Your task to perform on an android device: Search for "panasonic triple a" on amazon, select the first entry, and add it to the cart. Image 0: 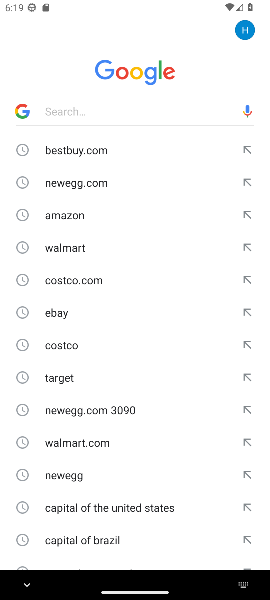
Step 0: click (76, 216)
Your task to perform on an android device: Search for "panasonic triple a" on amazon, select the first entry, and add it to the cart. Image 1: 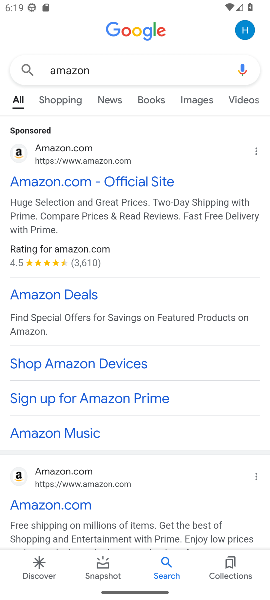
Step 1: click (52, 509)
Your task to perform on an android device: Search for "panasonic triple a" on amazon, select the first entry, and add it to the cart. Image 2: 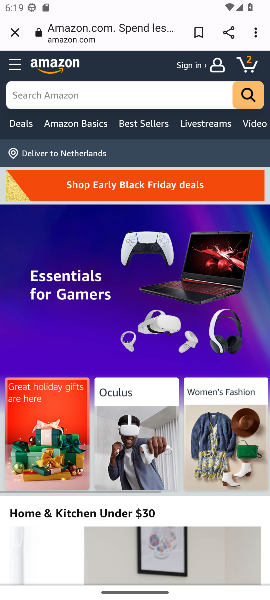
Step 2: click (113, 97)
Your task to perform on an android device: Search for "panasonic triple a" on amazon, select the first entry, and add it to the cart. Image 3: 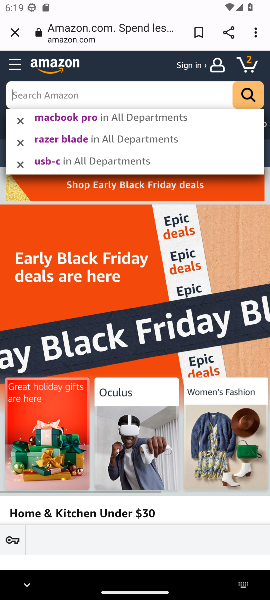
Step 3: type "panasonic triple a"
Your task to perform on an android device: Search for "panasonic triple a" on amazon, select the first entry, and add it to the cart. Image 4: 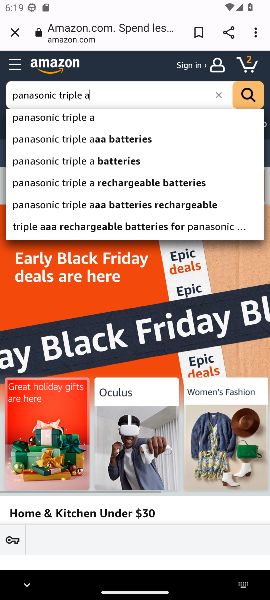
Step 4: click (81, 116)
Your task to perform on an android device: Search for "panasonic triple a" on amazon, select the first entry, and add it to the cart. Image 5: 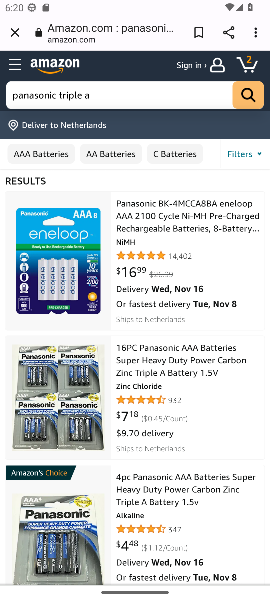
Step 5: task complete